Your task to perform on an android device: Show the shopping cart on costco.com. Search for "logitech g903" on costco.com, select the first entry, and add it to the cart. Image 0: 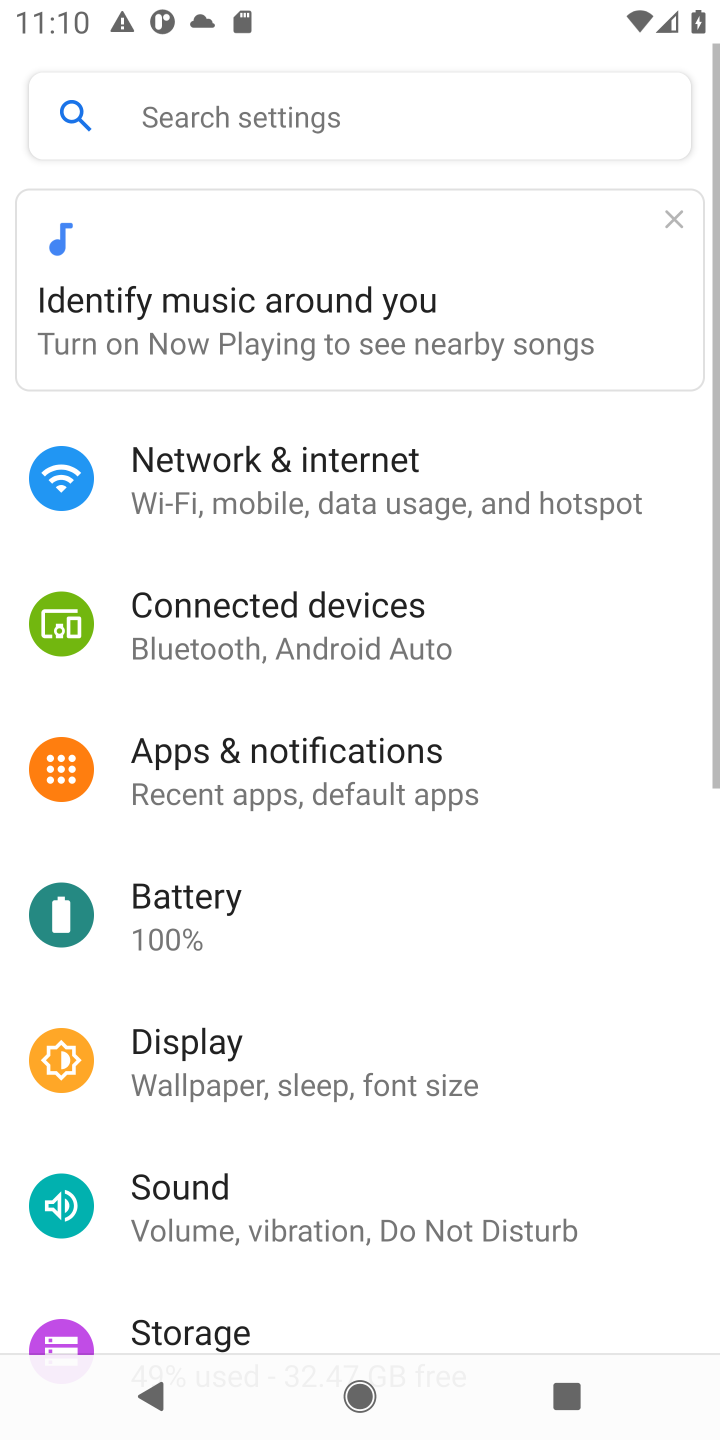
Step 0: press home button
Your task to perform on an android device: Show the shopping cart on costco.com. Search for "logitech g903" on costco.com, select the first entry, and add it to the cart. Image 1: 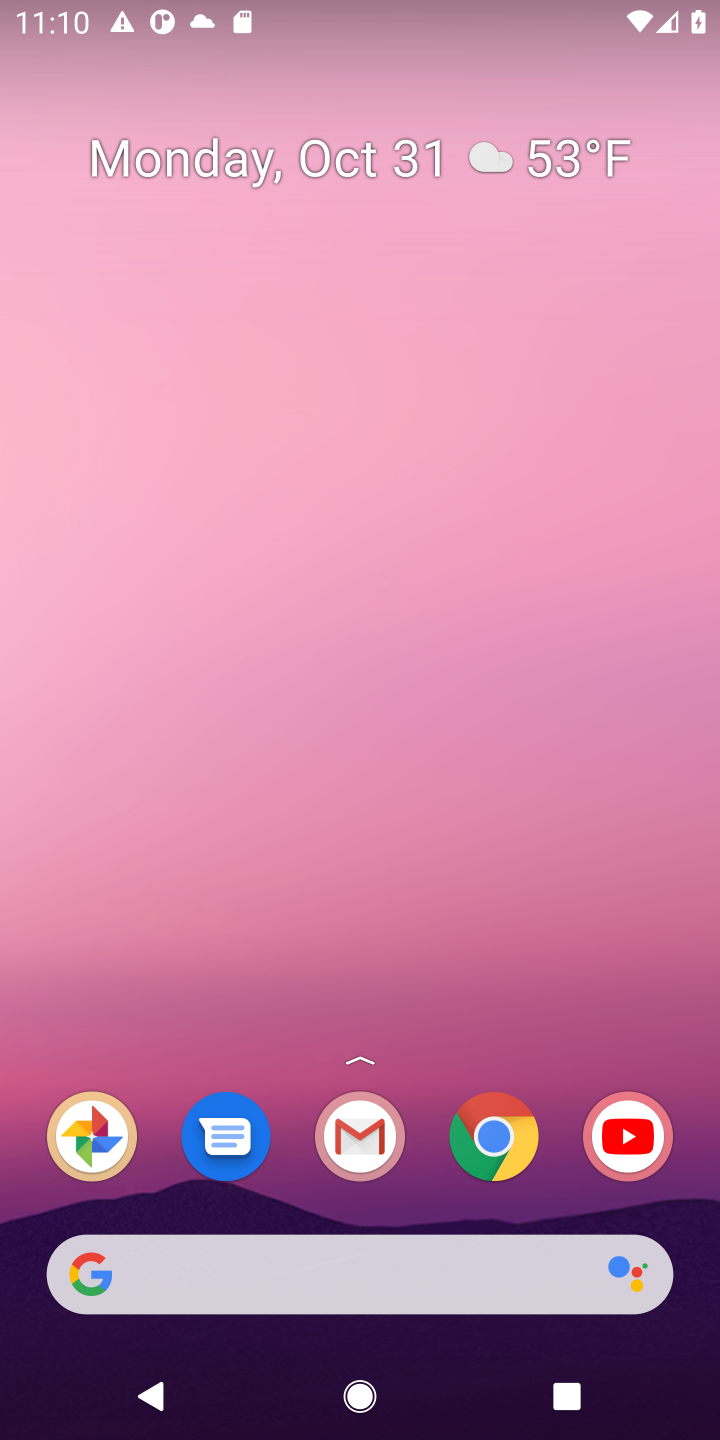
Step 1: click (139, 1270)
Your task to perform on an android device: Show the shopping cart on costco.com. Search for "logitech g903" on costco.com, select the first entry, and add it to the cart. Image 2: 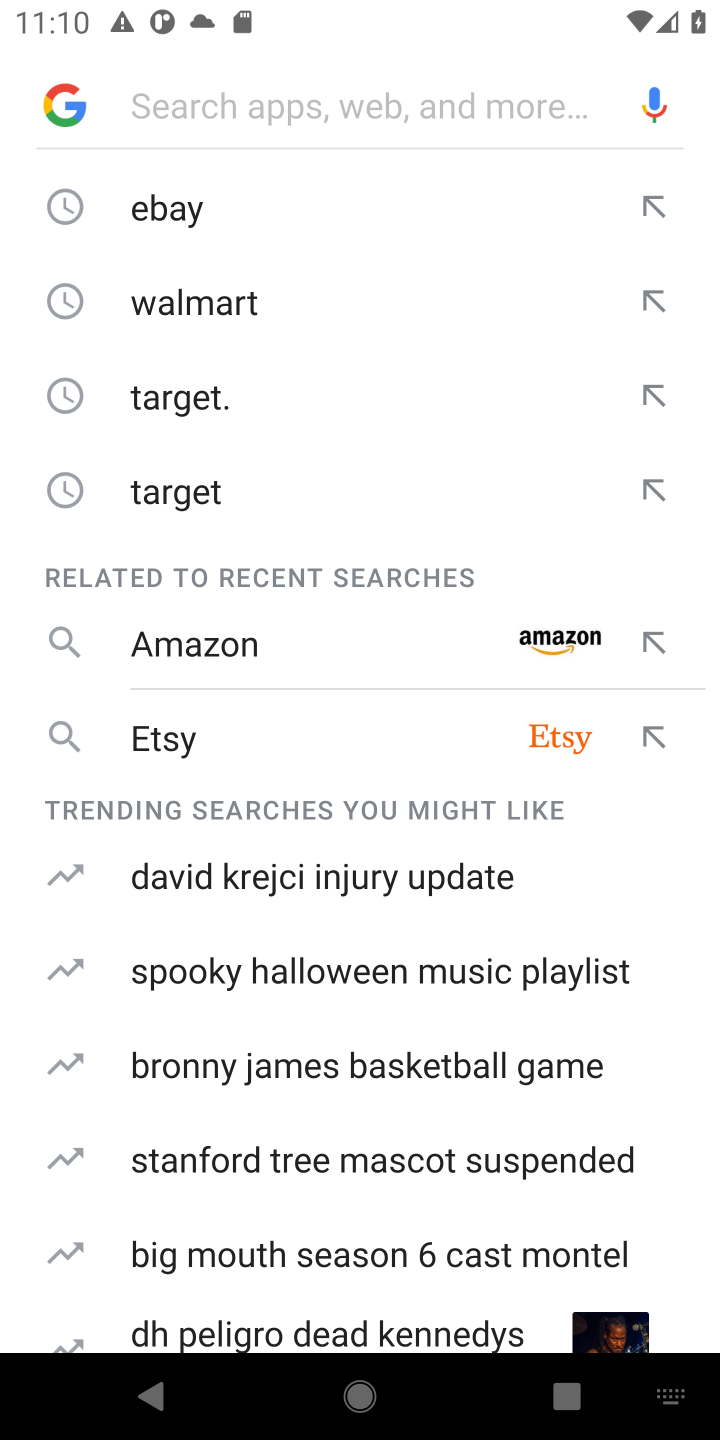
Step 2: type "costco.com"
Your task to perform on an android device: Show the shopping cart on costco.com. Search for "logitech g903" on costco.com, select the first entry, and add it to the cart. Image 3: 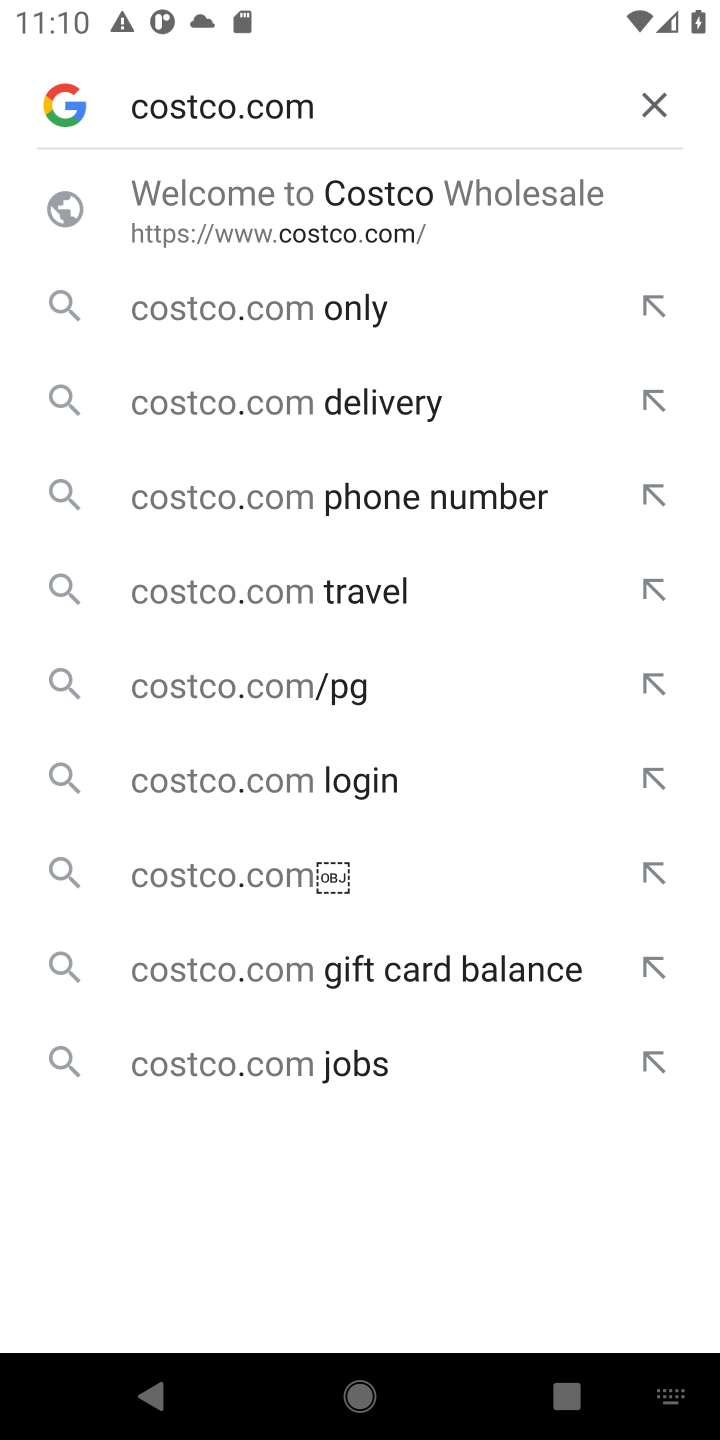
Step 3: press enter
Your task to perform on an android device: Show the shopping cart on costco.com. Search for "logitech g903" on costco.com, select the first entry, and add it to the cart. Image 4: 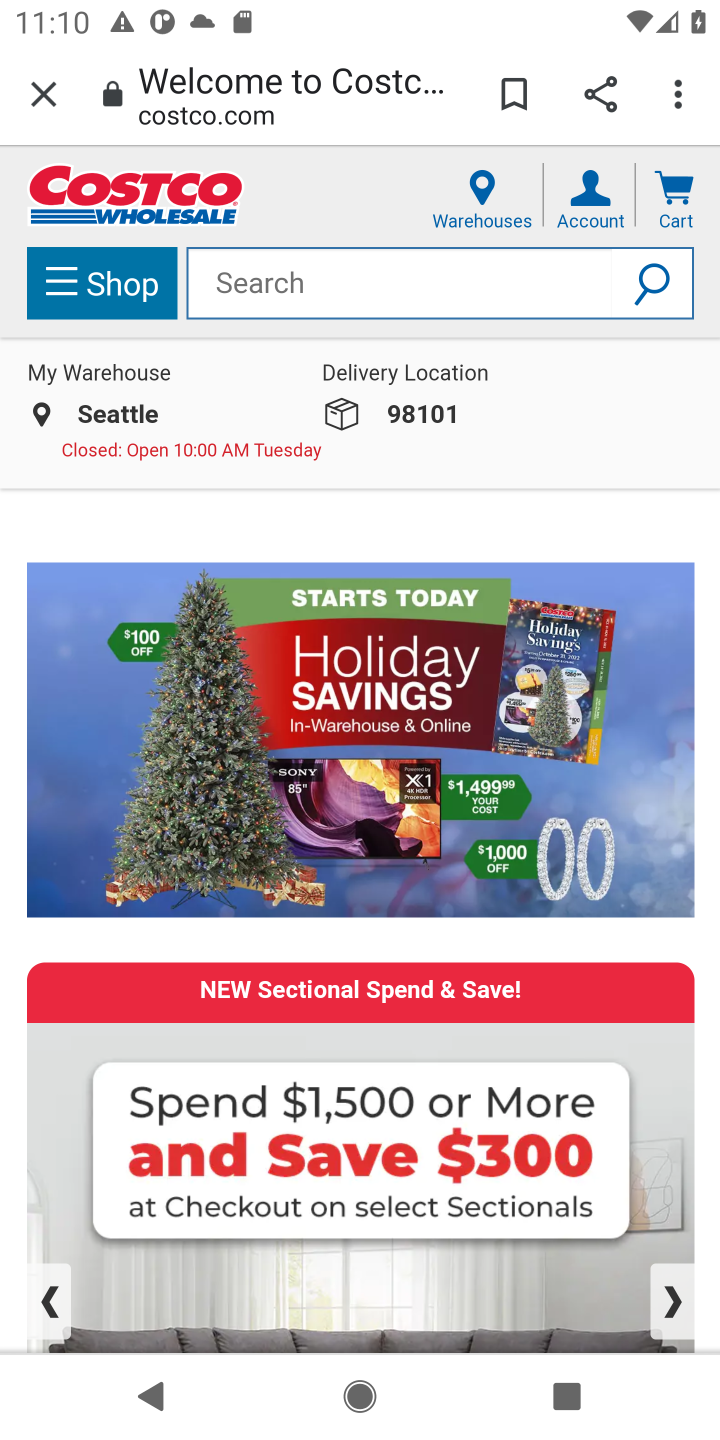
Step 4: click (253, 294)
Your task to perform on an android device: Show the shopping cart on costco.com. Search for "logitech g903" on costco.com, select the first entry, and add it to the cart. Image 5: 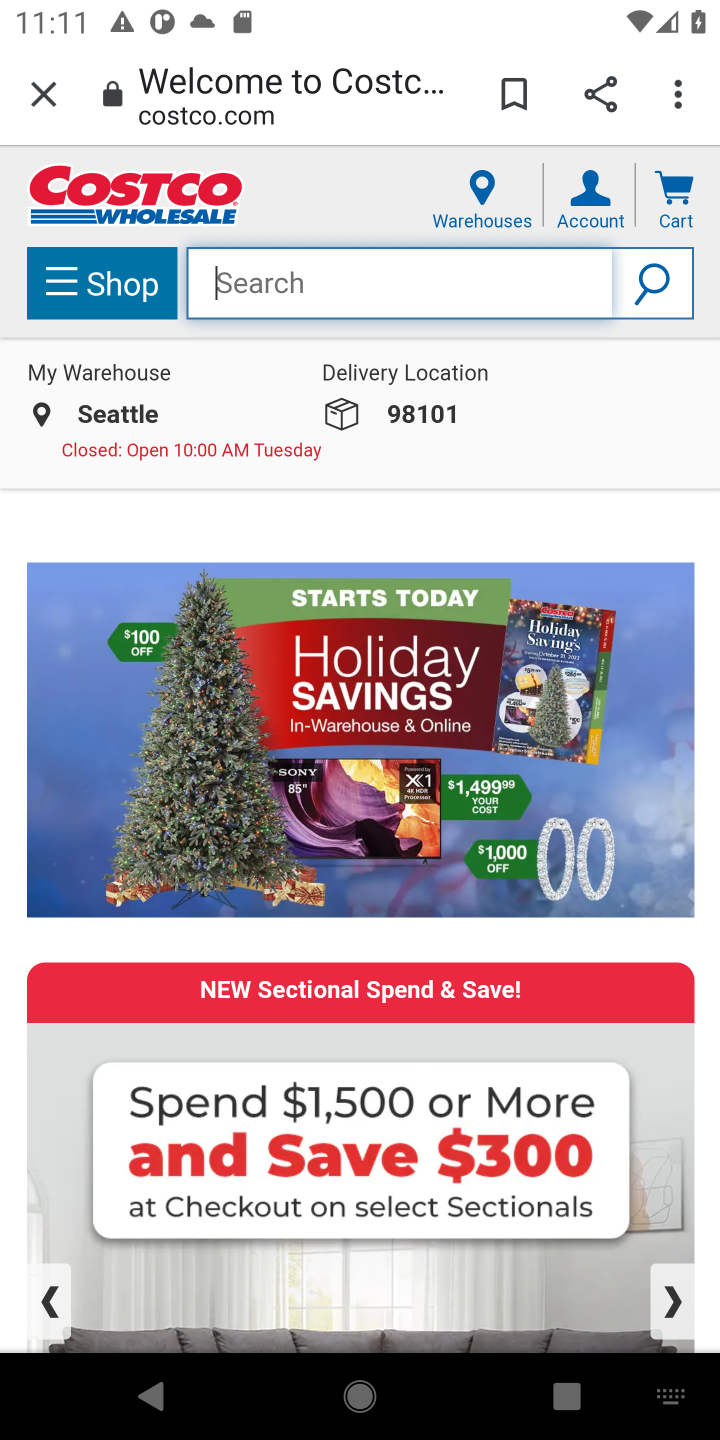
Step 5: type "logitech g903"
Your task to perform on an android device: Show the shopping cart on costco.com. Search for "logitech g903" on costco.com, select the first entry, and add it to the cart. Image 6: 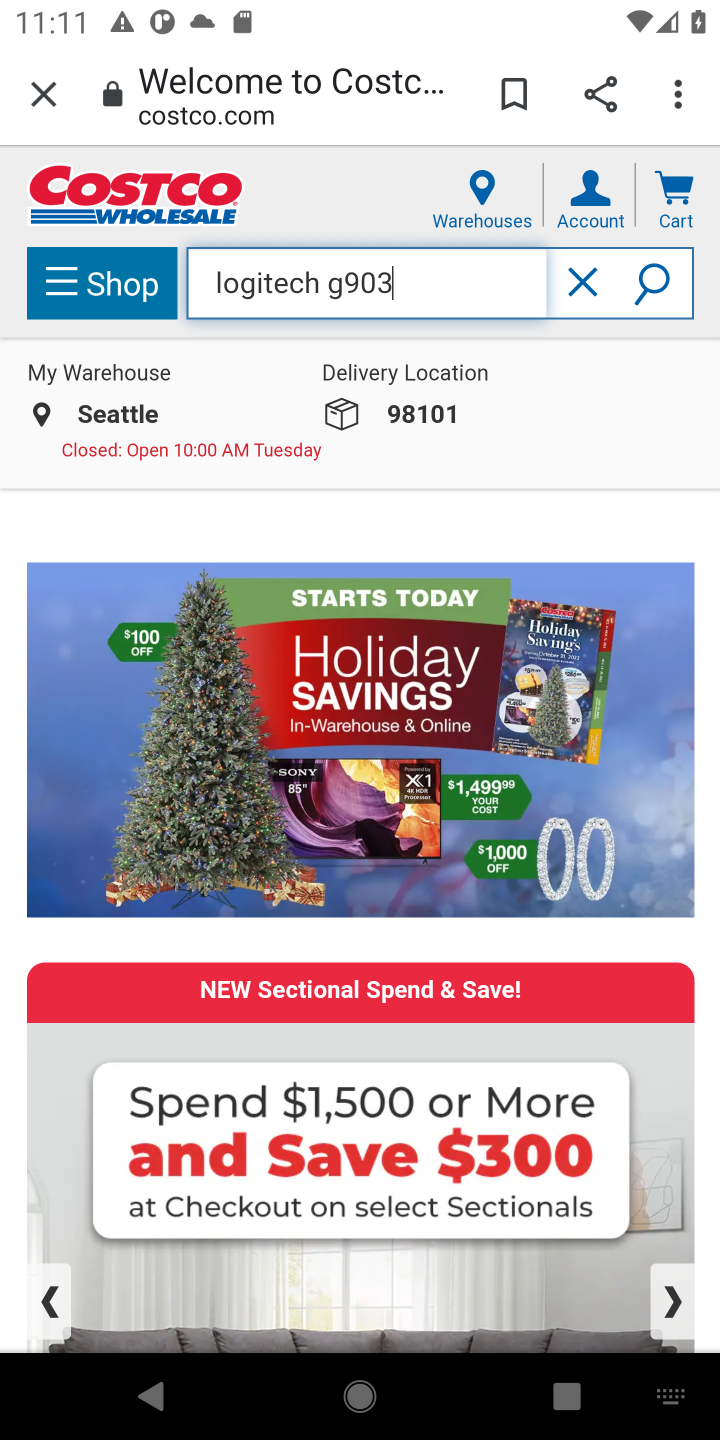
Step 6: press enter
Your task to perform on an android device: Show the shopping cart on costco.com. Search for "logitech g903" on costco.com, select the first entry, and add it to the cart. Image 7: 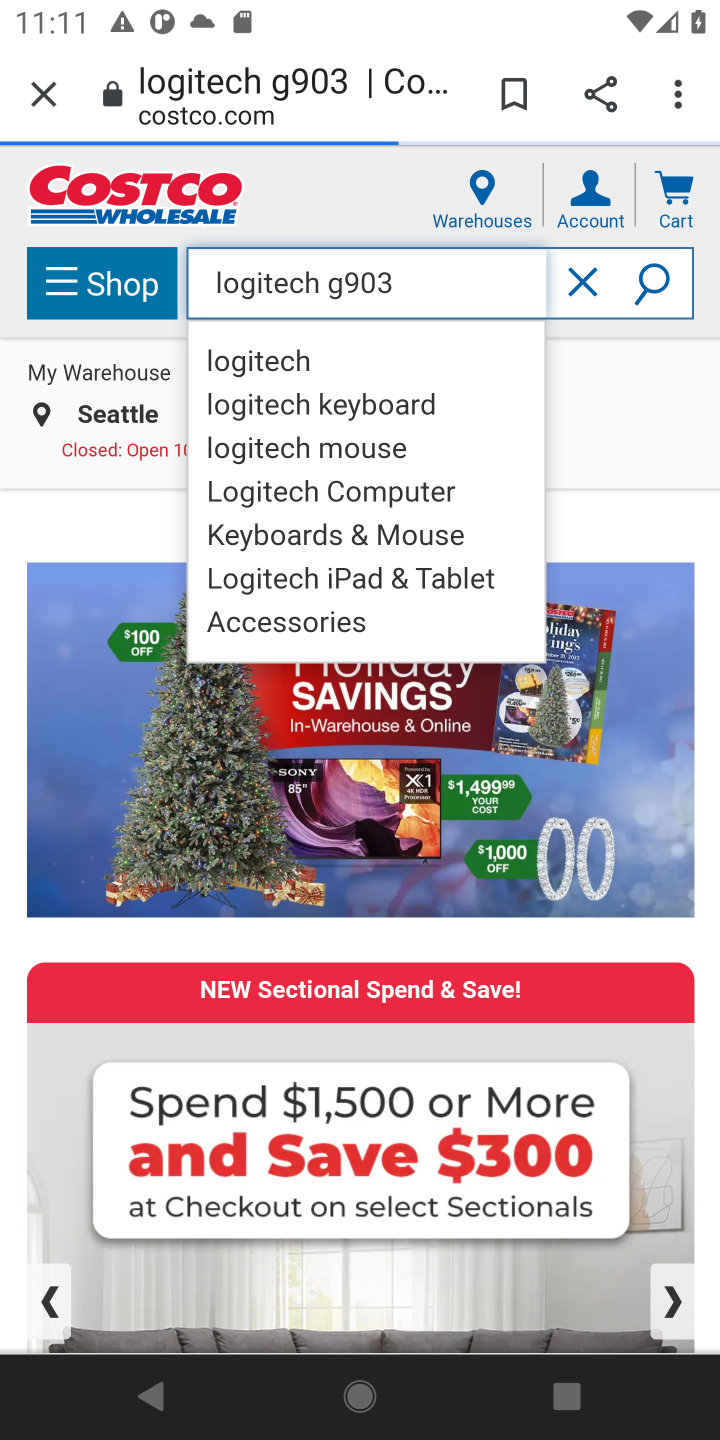
Step 7: click (651, 270)
Your task to perform on an android device: Show the shopping cart on costco.com. Search for "logitech g903" on costco.com, select the first entry, and add it to the cart. Image 8: 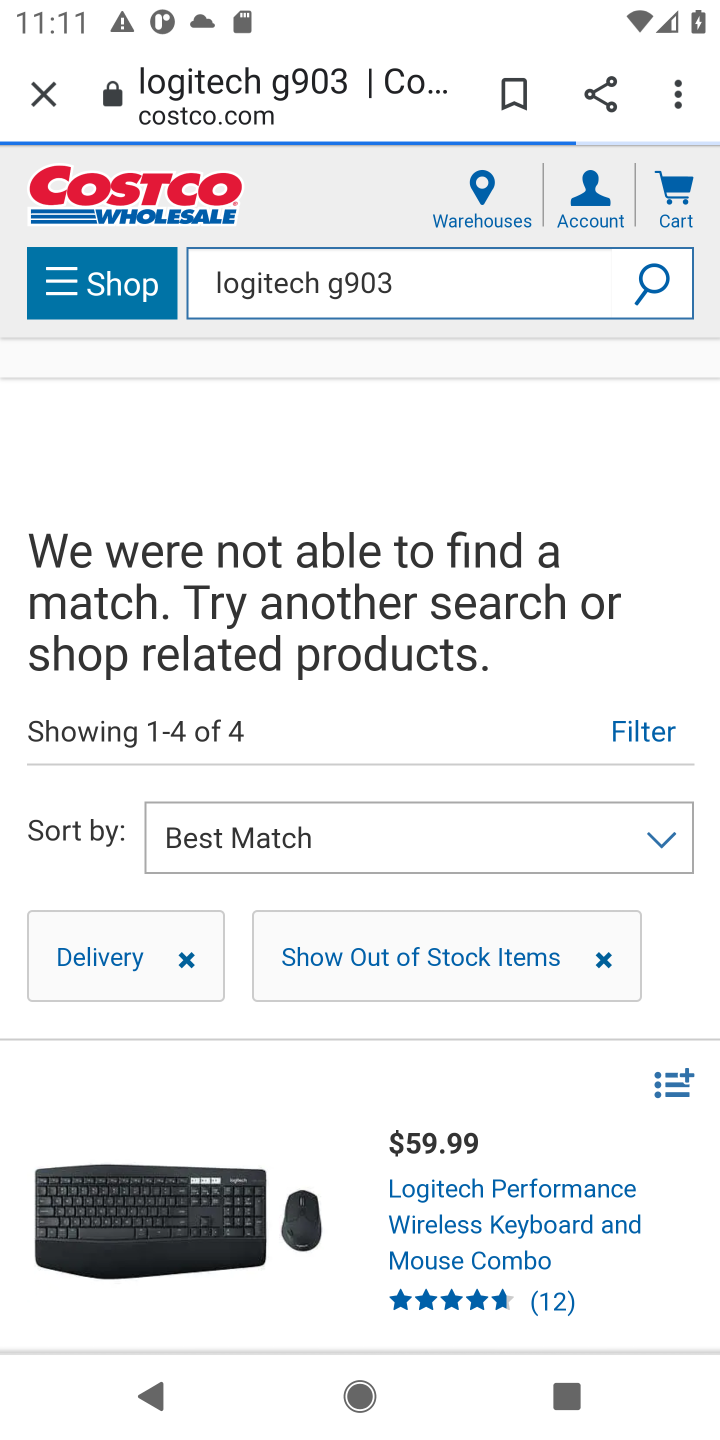
Step 8: task complete